Your task to perform on an android device: toggle improve location accuracy Image 0: 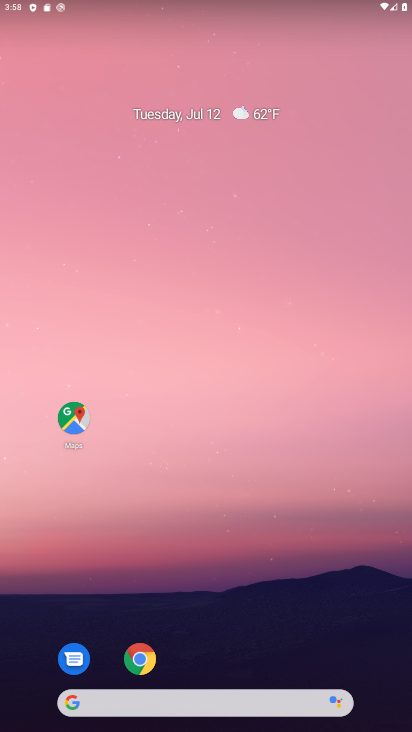
Step 0: press home button
Your task to perform on an android device: toggle improve location accuracy Image 1: 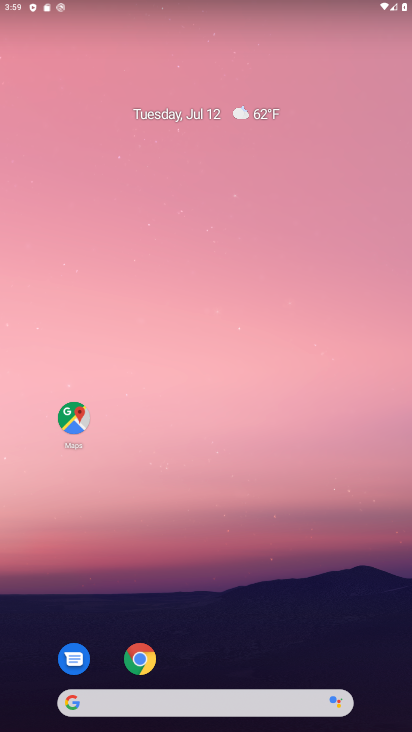
Step 1: drag from (228, 657) to (252, 34)
Your task to perform on an android device: toggle improve location accuracy Image 2: 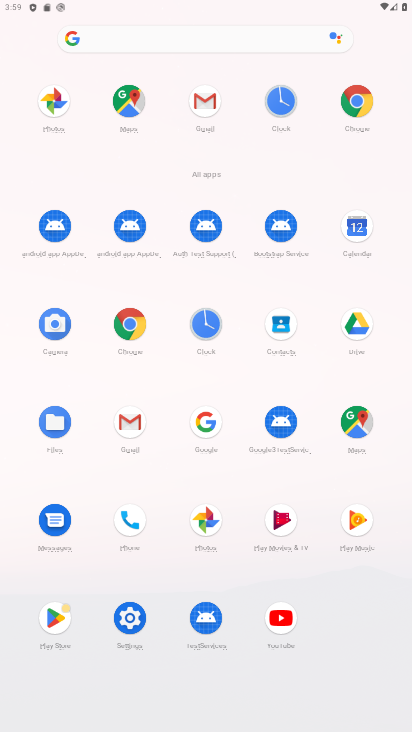
Step 2: click (124, 611)
Your task to perform on an android device: toggle improve location accuracy Image 3: 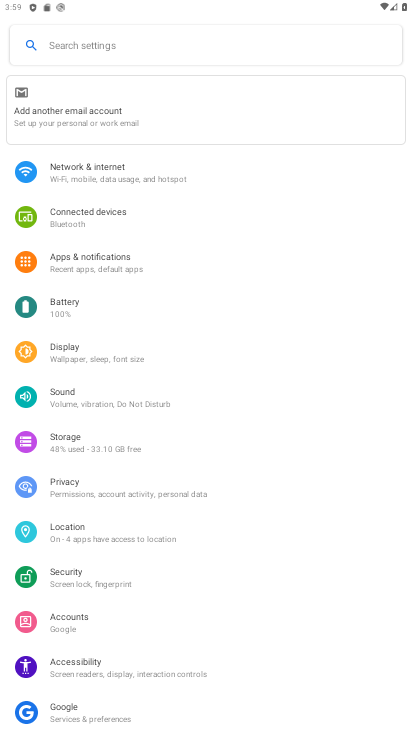
Step 3: click (93, 528)
Your task to perform on an android device: toggle improve location accuracy Image 4: 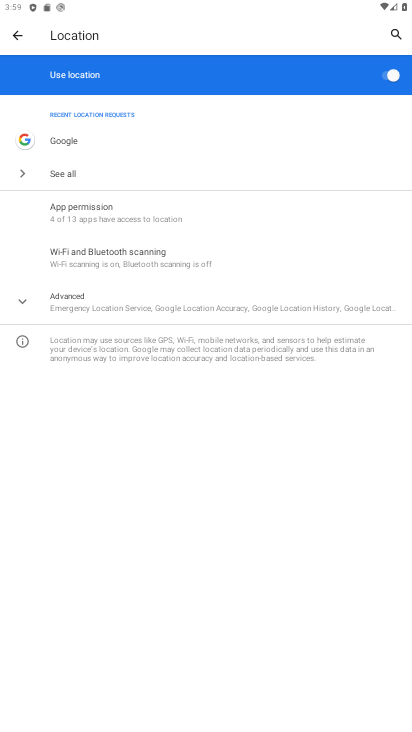
Step 4: click (19, 300)
Your task to perform on an android device: toggle improve location accuracy Image 5: 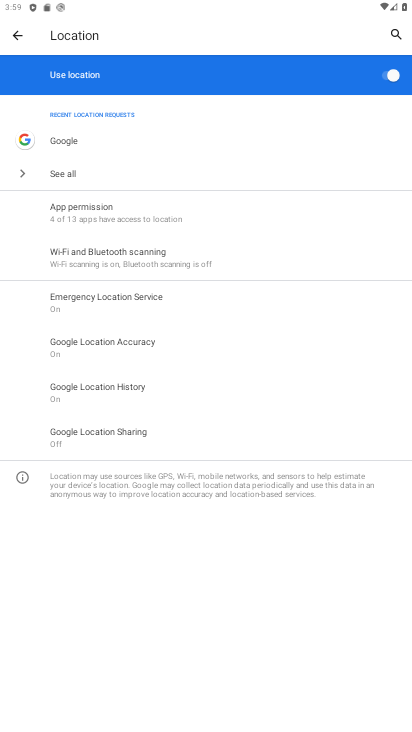
Step 5: click (128, 345)
Your task to perform on an android device: toggle improve location accuracy Image 6: 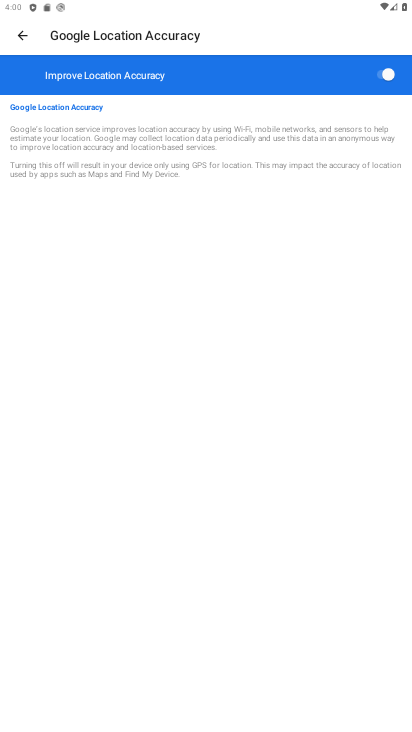
Step 6: click (383, 73)
Your task to perform on an android device: toggle improve location accuracy Image 7: 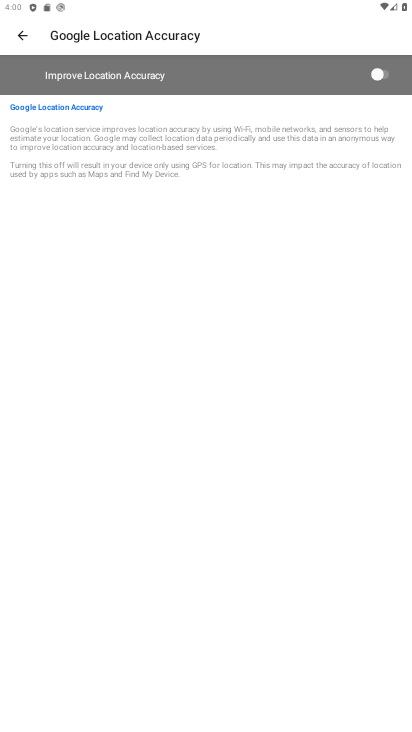
Step 7: task complete